Your task to perform on an android device: Open Yahoo.com Image 0: 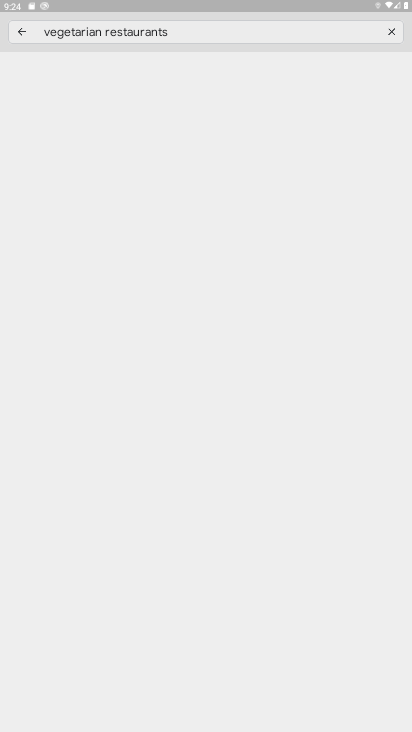
Step 0: press home button
Your task to perform on an android device: Open Yahoo.com Image 1: 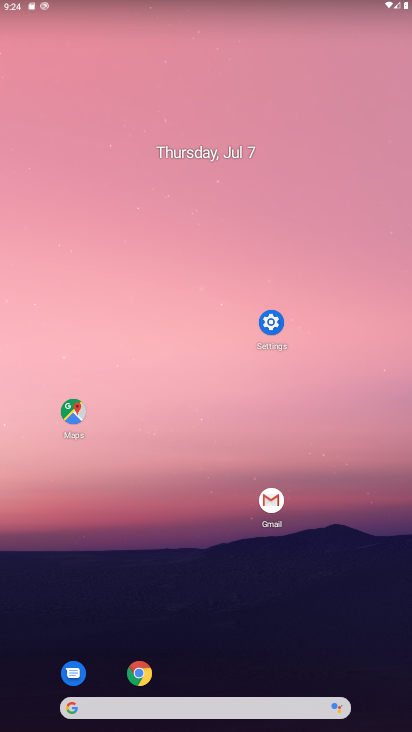
Step 1: click (124, 673)
Your task to perform on an android device: Open Yahoo.com Image 2: 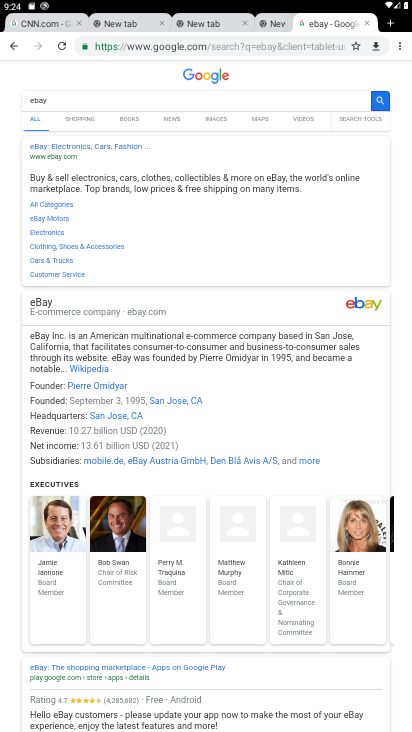
Step 2: click (342, 44)
Your task to perform on an android device: Open Yahoo.com Image 3: 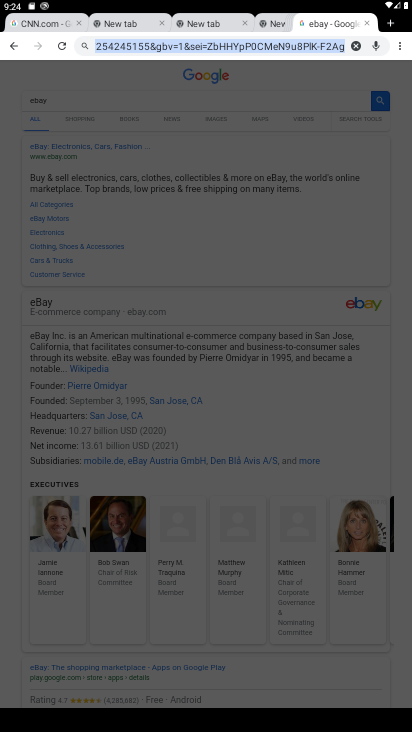
Step 3: click (354, 44)
Your task to perform on an android device: Open Yahoo.com Image 4: 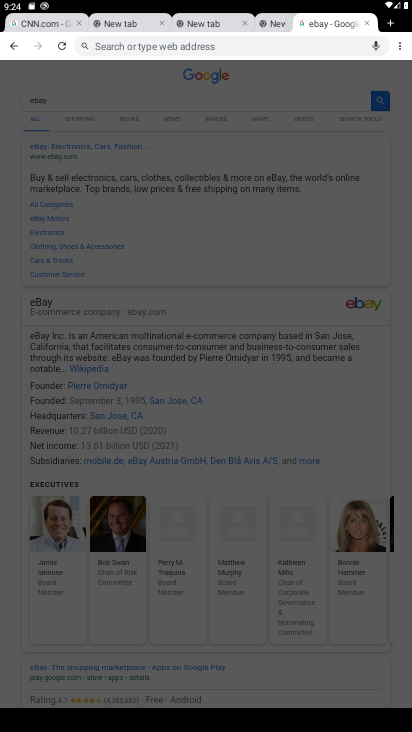
Step 4: type "Yahoo.com"
Your task to perform on an android device: Open Yahoo.com Image 5: 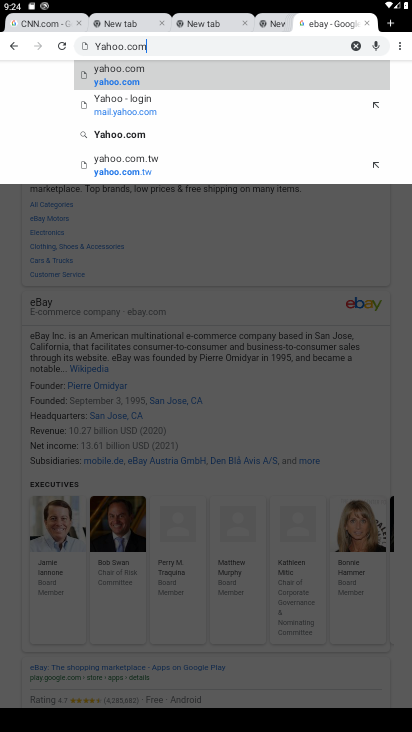
Step 5: click (110, 129)
Your task to perform on an android device: Open Yahoo.com Image 6: 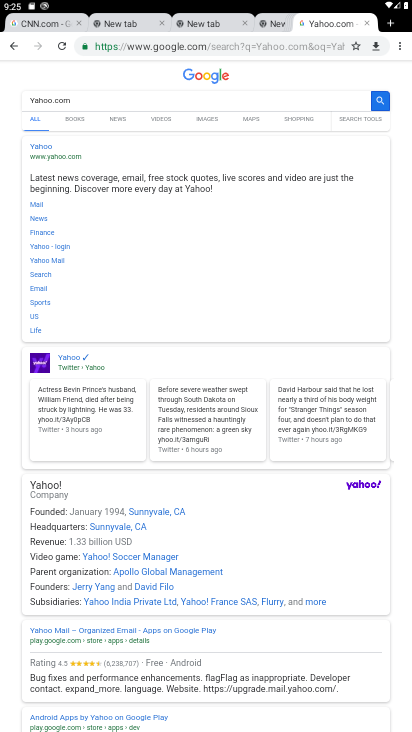
Step 6: click (325, 45)
Your task to perform on an android device: Open Yahoo.com Image 7: 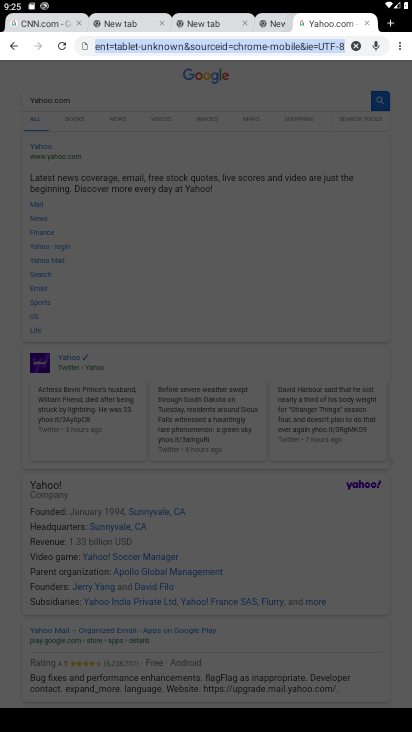
Step 7: click (356, 44)
Your task to perform on an android device: Open Yahoo.com Image 8: 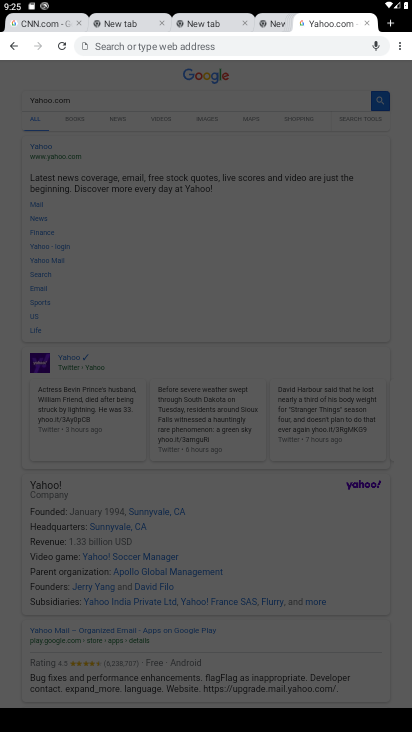
Step 8: type "Yahoo.com"
Your task to perform on an android device: Open Yahoo.com Image 9: 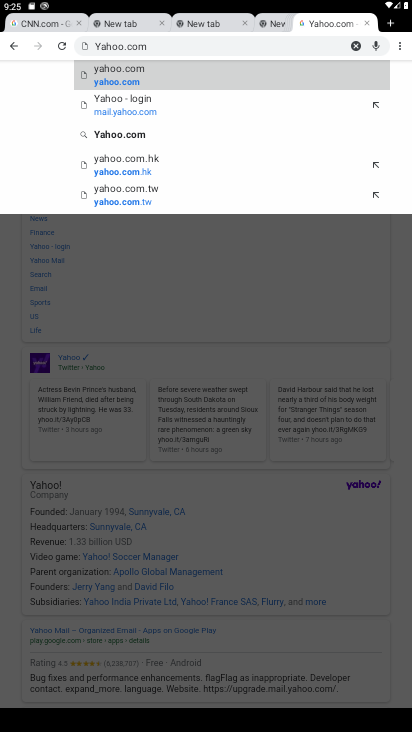
Step 9: click (138, 134)
Your task to perform on an android device: Open Yahoo.com Image 10: 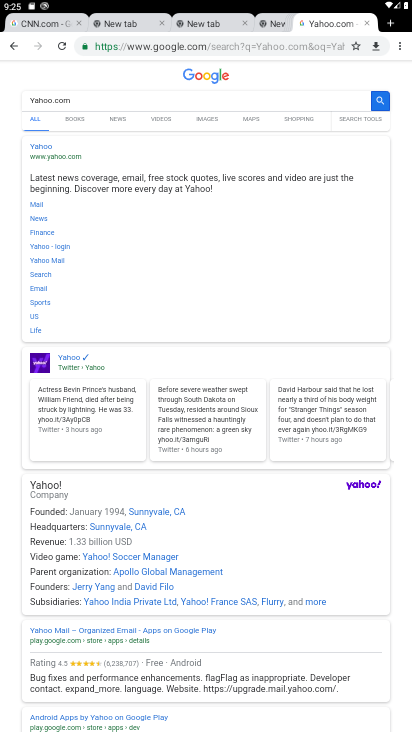
Step 10: task complete